Your task to perform on an android device: Go to Yahoo.com Image 0: 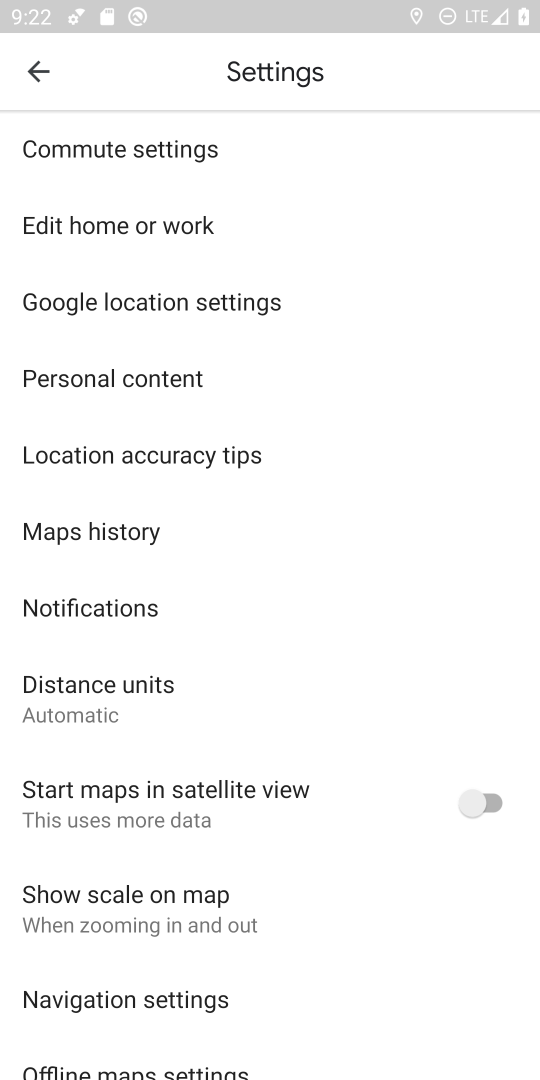
Step 0: press home button
Your task to perform on an android device: Go to Yahoo.com Image 1: 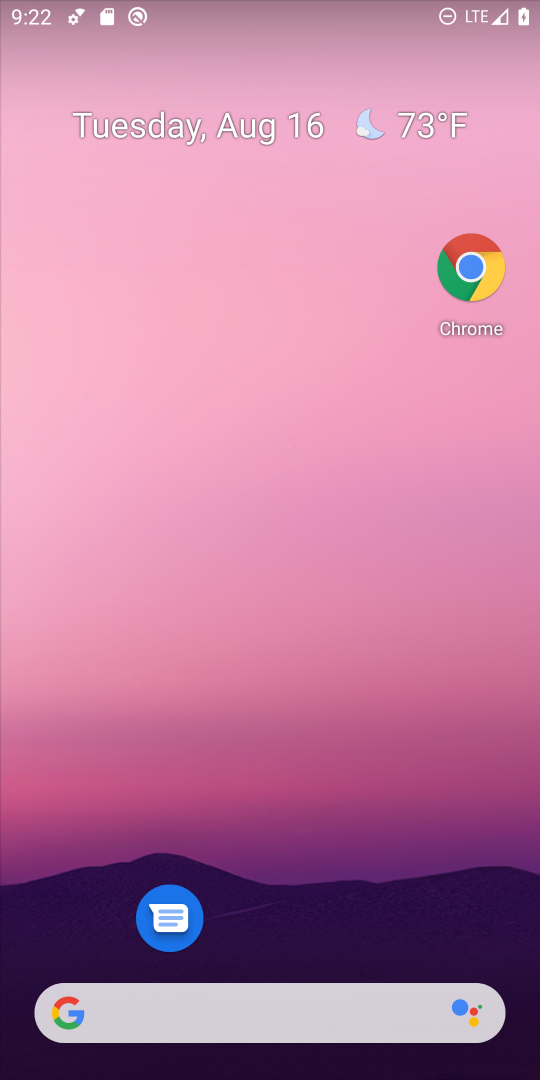
Step 1: drag from (323, 966) to (391, 474)
Your task to perform on an android device: Go to Yahoo.com Image 2: 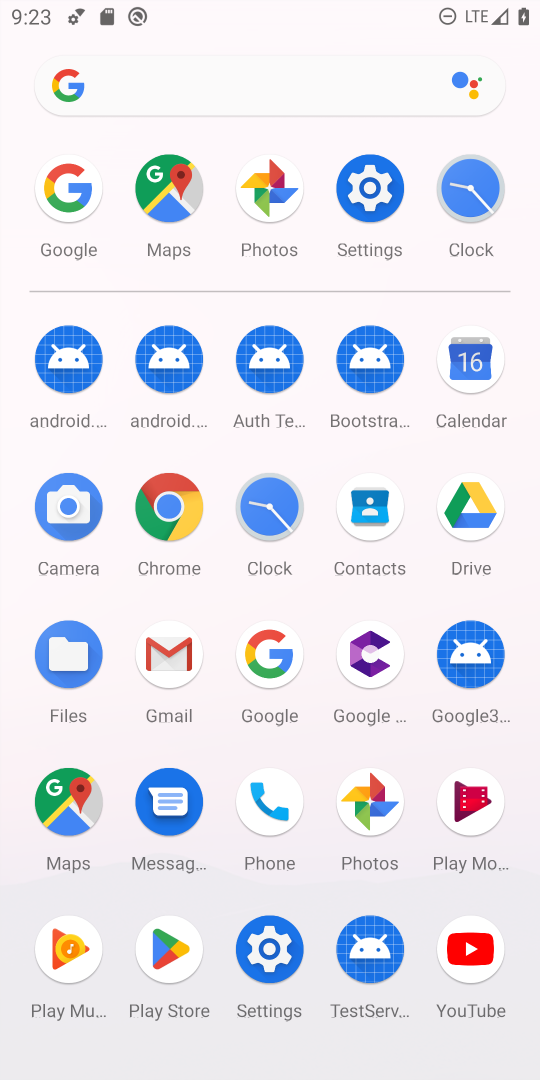
Step 2: click (173, 534)
Your task to perform on an android device: Go to Yahoo.com Image 3: 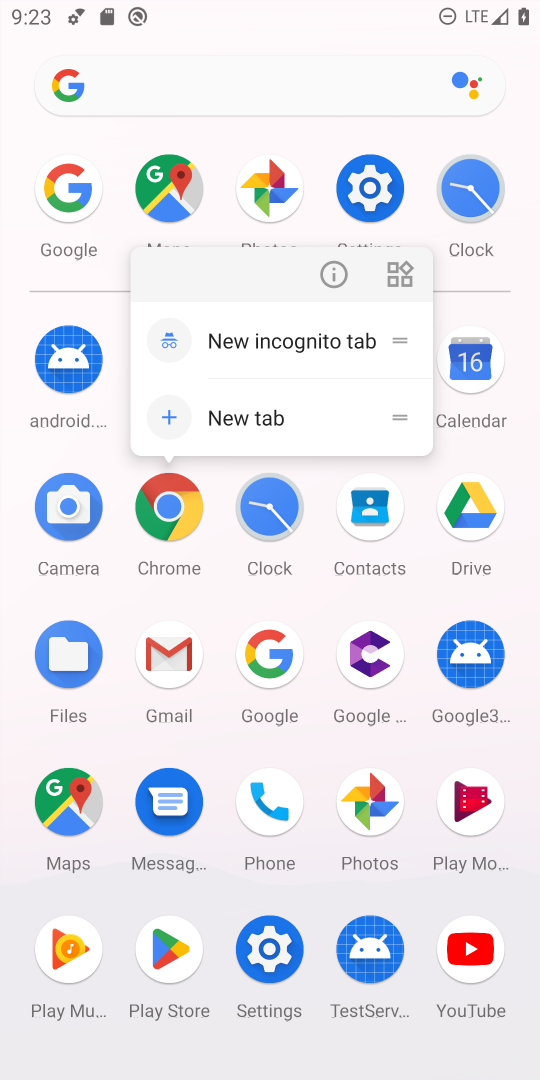
Step 3: click (156, 541)
Your task to perform on an android device: Go to Yahoo.com Image 4: 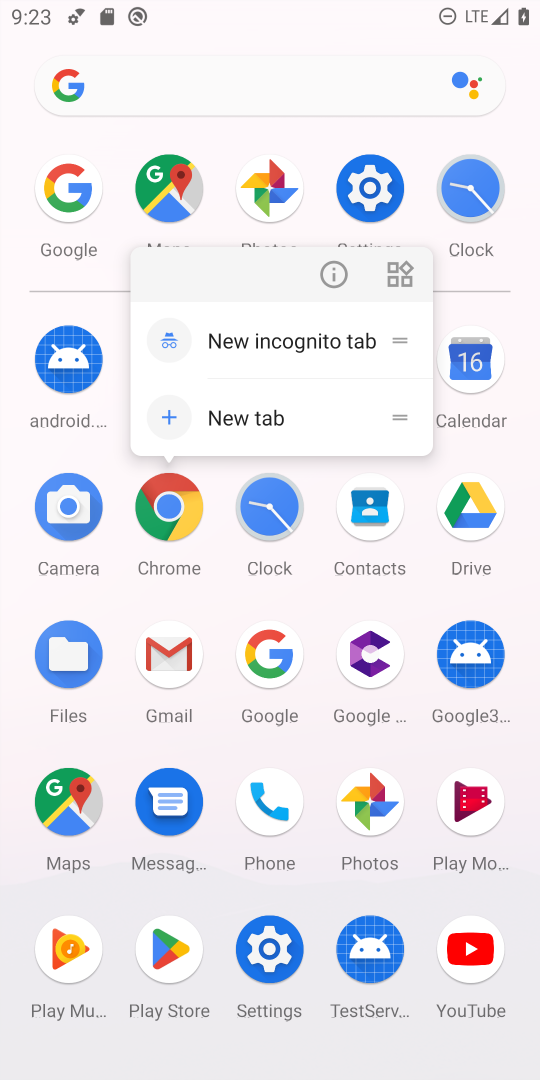
Step 4: click (184, 538)
Your task to perform on an android device: Go to Yahoo.com Image 5: 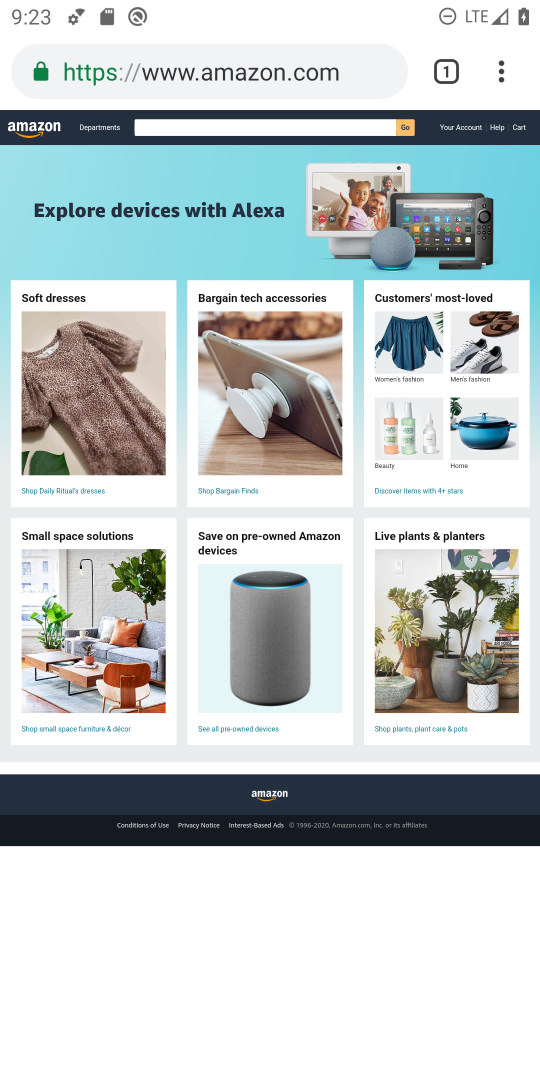
Step 5: click (386, 84)
Your task to perform on an android device: Go to Yahoo.com Image 6: 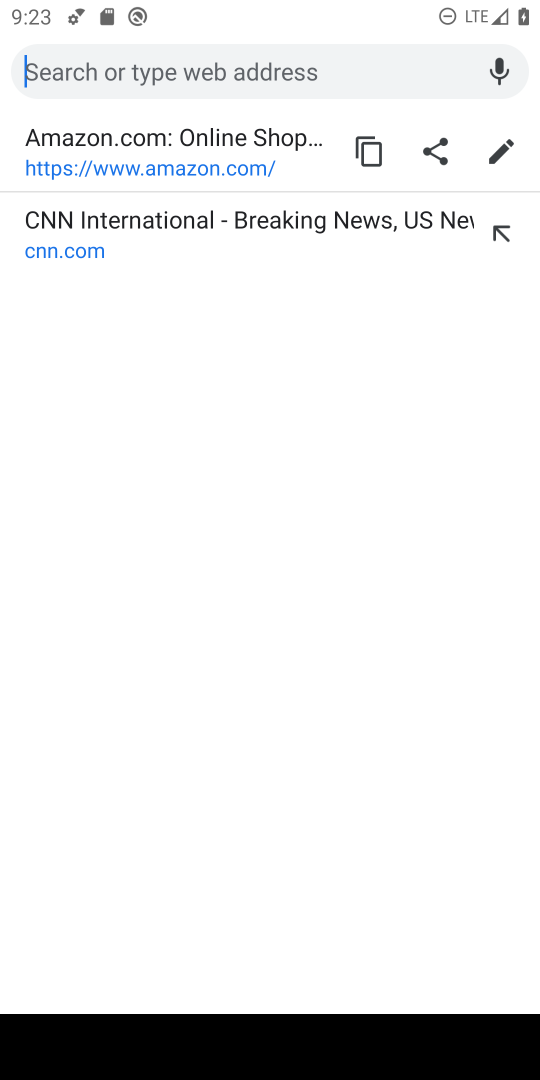
Step 6: type "yahoo"
Your task to perform on an android device: Go to Yahoo.com Image 7: 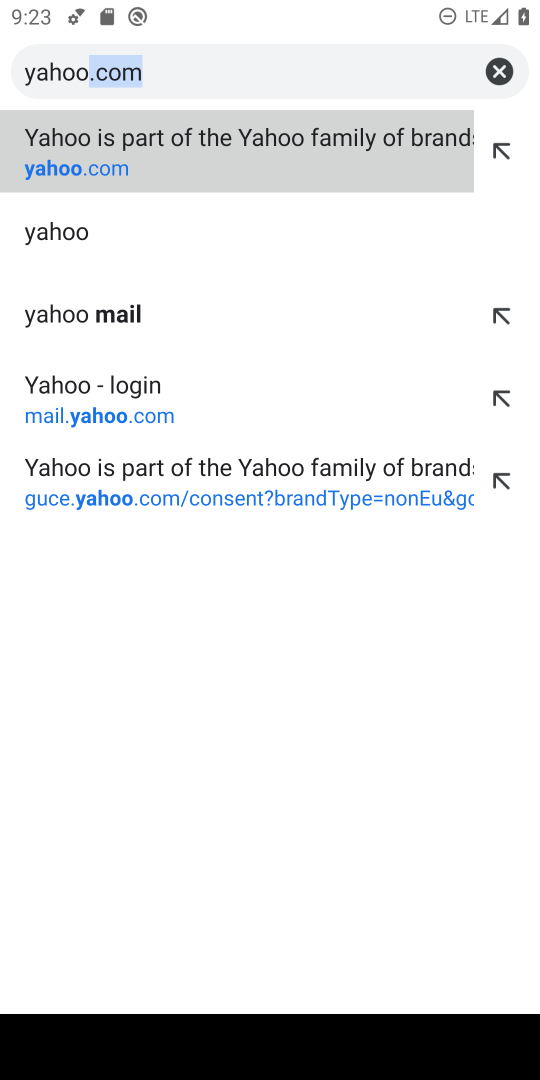
Step 7: click (248, 165)
Your task to perform on an android device: Go to Yahoo.com Image 8: 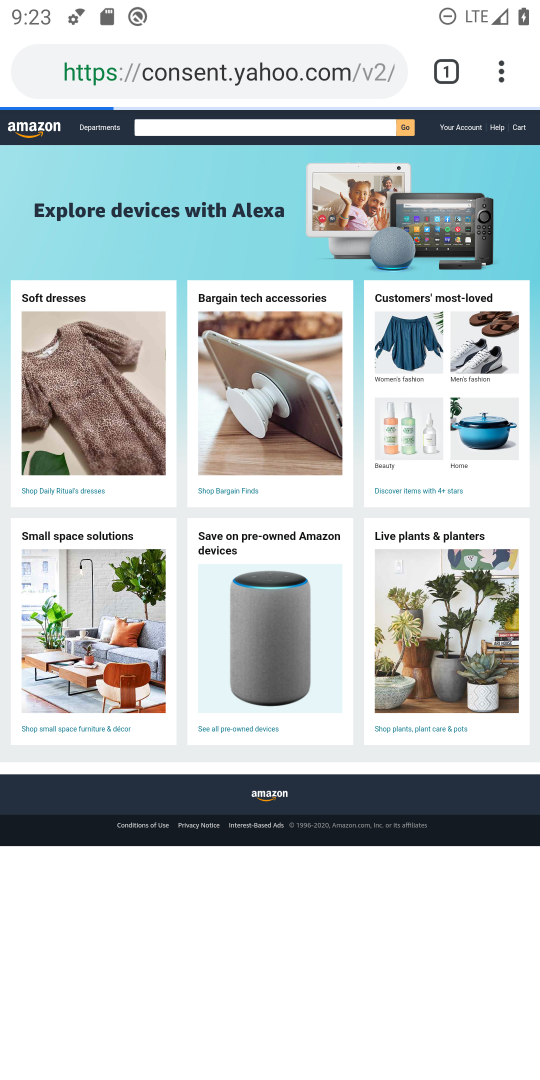
Step 8: click (250, 164)
Your task to perform on an android device: Go to Yahoo.com Image 9: 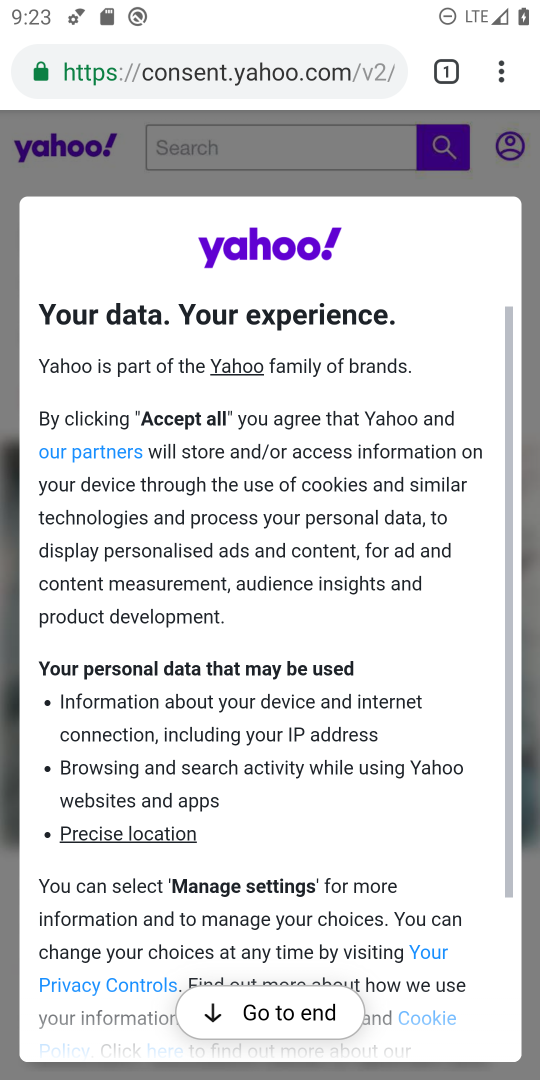
Step 9: task complete